Your task to perform on an android device: check storage Image 0: 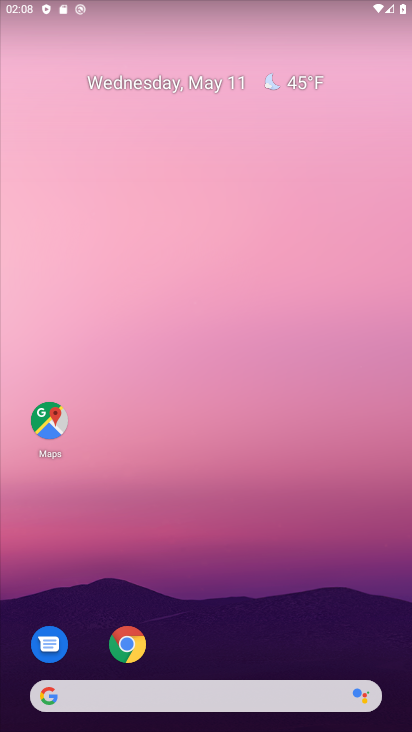
Step 0: drag from (197, 604) to (324, 37)
Your task to perform on an android device: check storage Image 1: 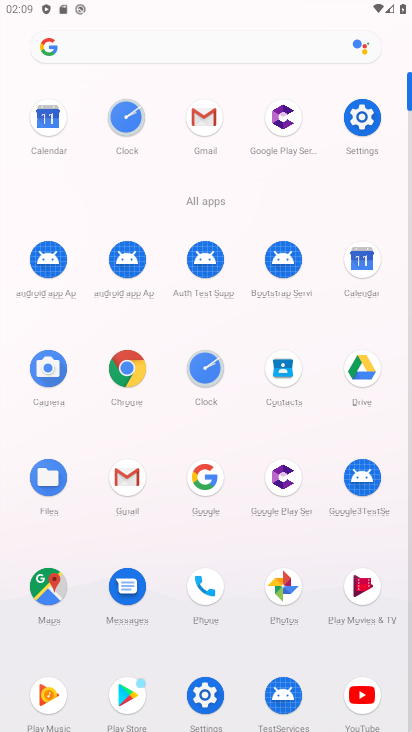
Step 1: click (375, 122)
Your task to perform on an android device: check storage Image 2: 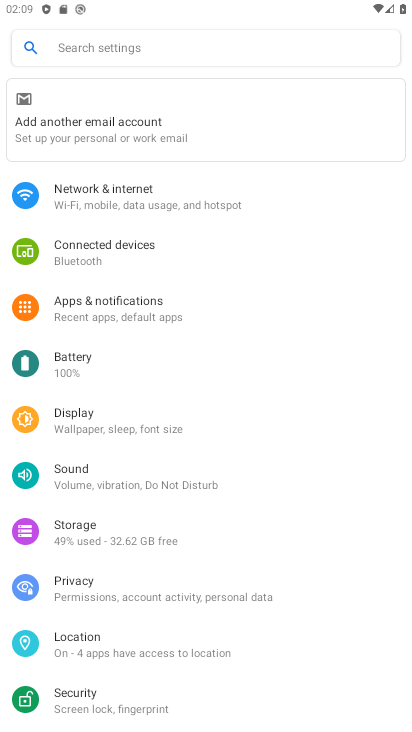
Step 2: click (93, 526)
Your task to perform on an android device: check storage Image 3: 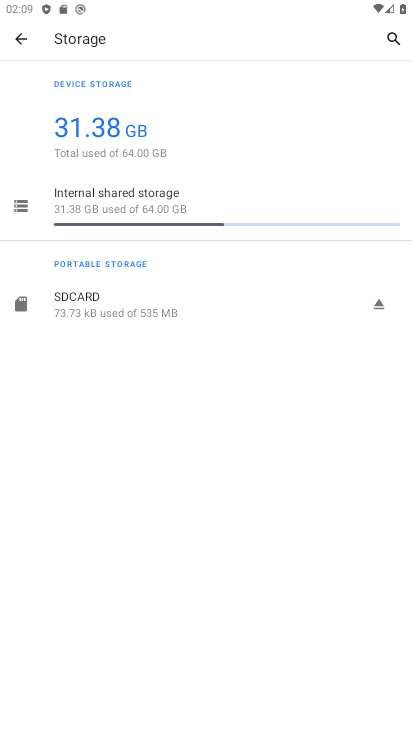
Step 3: task complete